Your task to perform on an android device: Search for pizza restaurants on Maps Image 0: 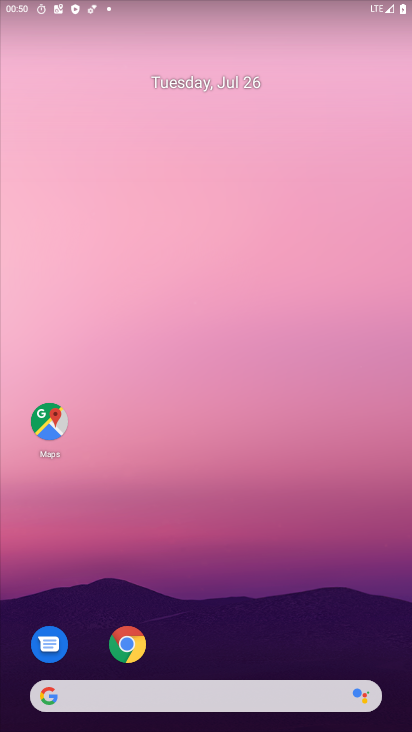
Step 0: click (52, 420)
Your task to perform on an android device: Search for pizza restaurants on Maps Image 1: 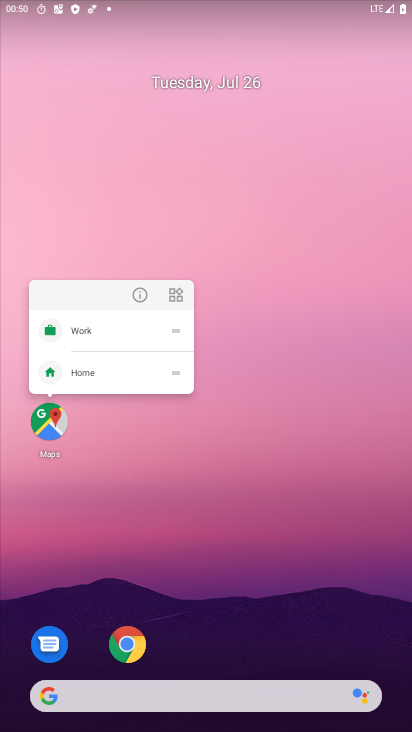
Step 1: click (52, 420)
Your task to perform on an android device: Search for pizza restaurants on Maps Image 2: 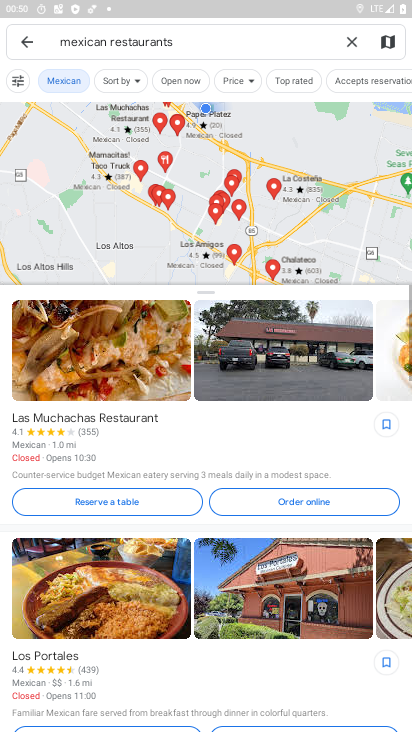
Step 2: click (352, 47)
Your task to perform on an android device: Search for pizza restaurants on Maps Image 3: 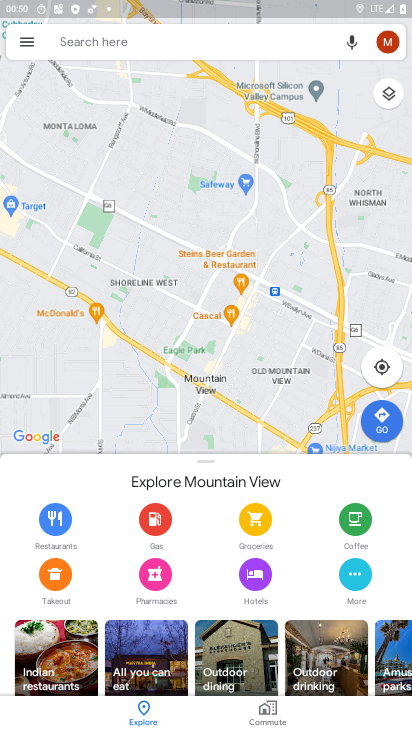
Step 3: click (126, 36)
Your task to perform on an android device: Search for pizza restaurants on Maps Image 4: 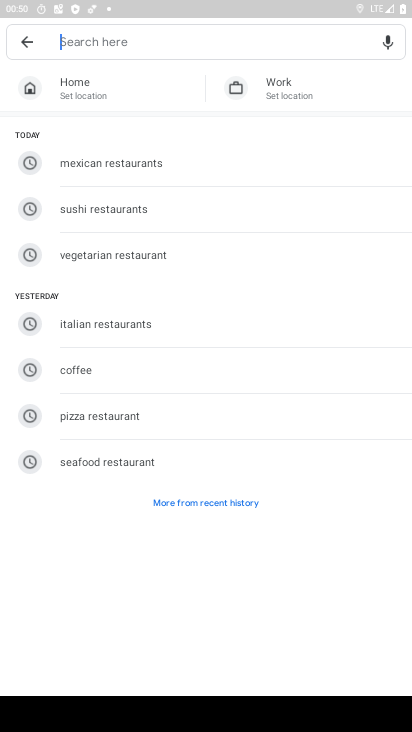
Step 4: type "pizza restaurants"
Your task to perform on an android device: Search for pizza restaurants on Maps Image 5: 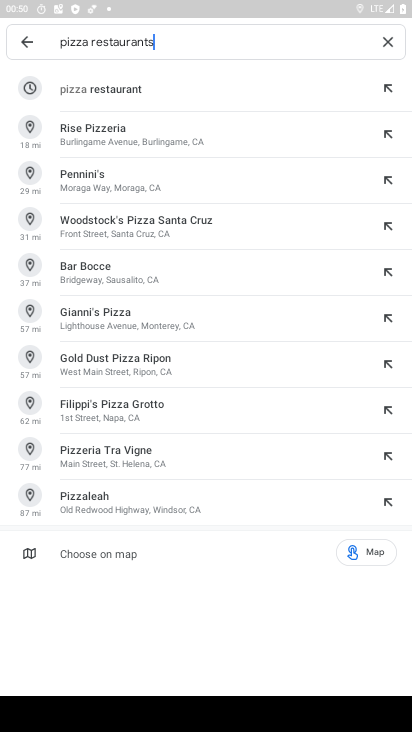
Step 5: click (126, 91)
Your task to perform on an android device: Search for pizza restaurants on Maps Image 6: 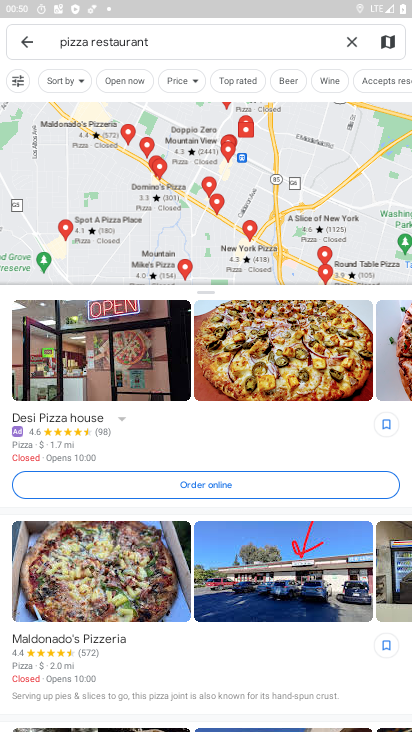
Step 6: task complete